Your task to perform on an android device: toggle sleep mode Image 0: 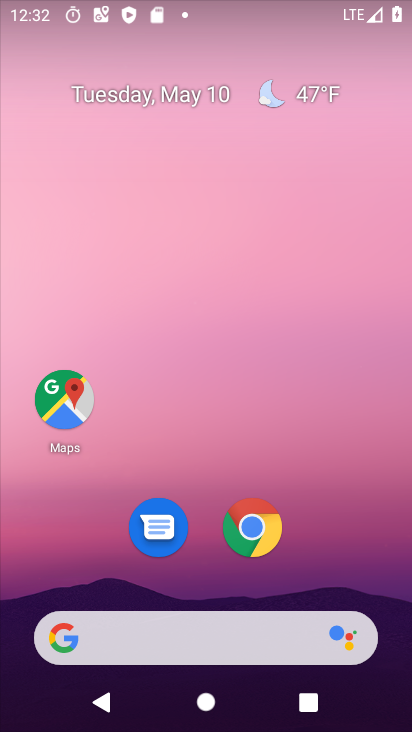
Step 0: drag from (354, 521) to (323, 151)
Your task to perform on an android device: toggle sleep mode Image 1: 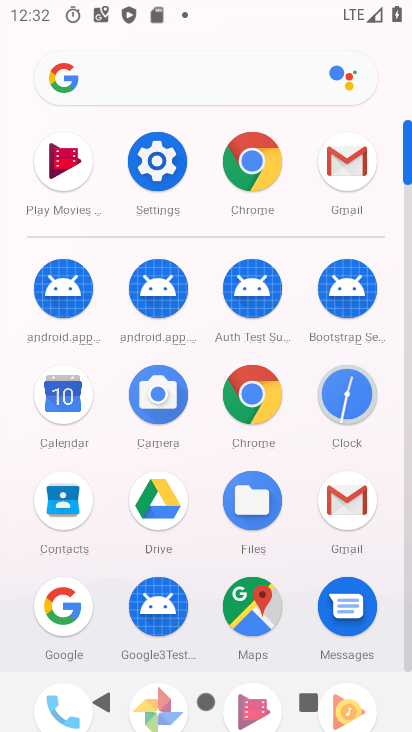
Step 1: click (176, 172)
Your task to perform on an android device: toggle sleep mode Image 2: 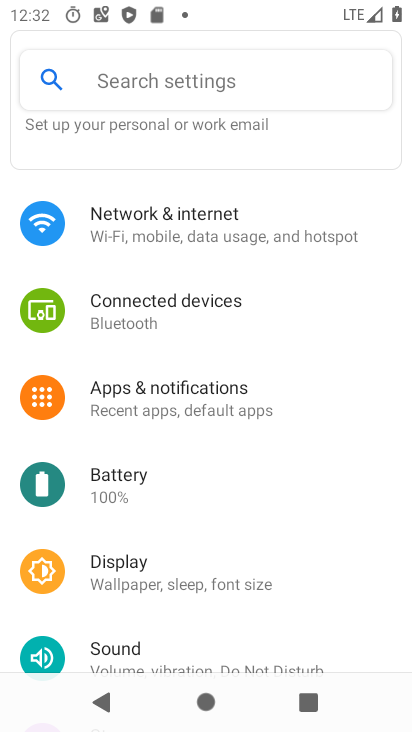
Step 2: click (222, 88)
Your task to perform on an android device: toggle sleep mode Image 3: 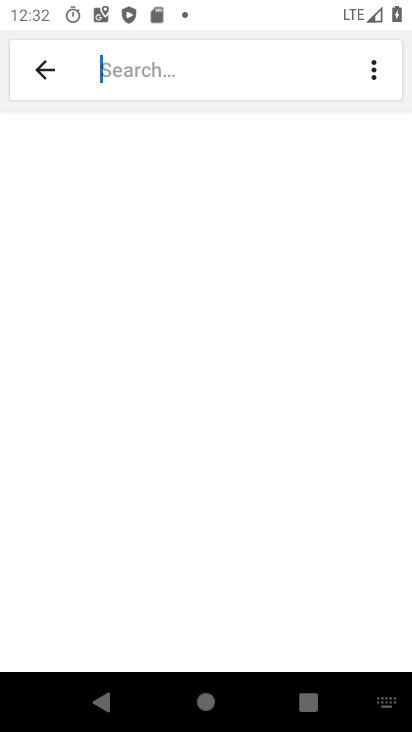
Step 3: type "sleep mode"
Your task to perform on an android device: toggle sleep mode Image 4: 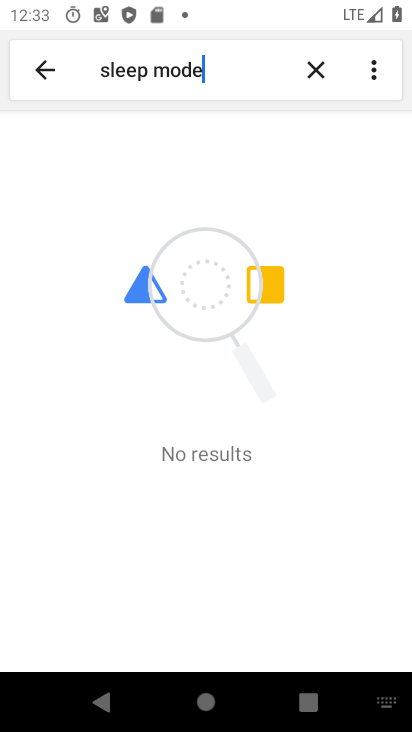
Step 4: task complete